Your task to perform on an android device: What's the weather going to be tomorrow? Image 0: 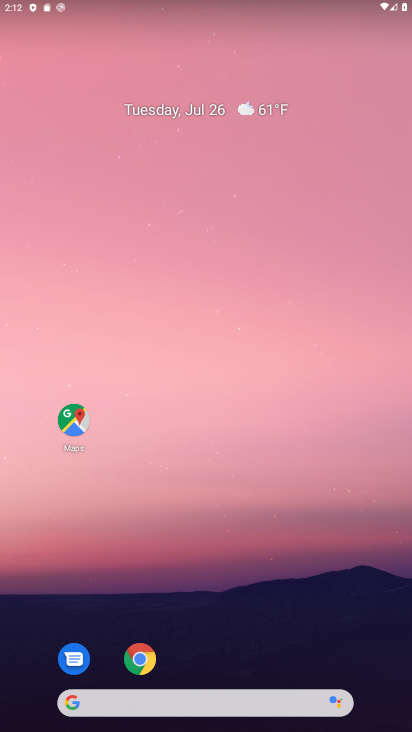
Step 0: drag from (190, 635) to (237, 116)
Your task to perform on an android device: What's the weather going to be tomorrow? Image 1: 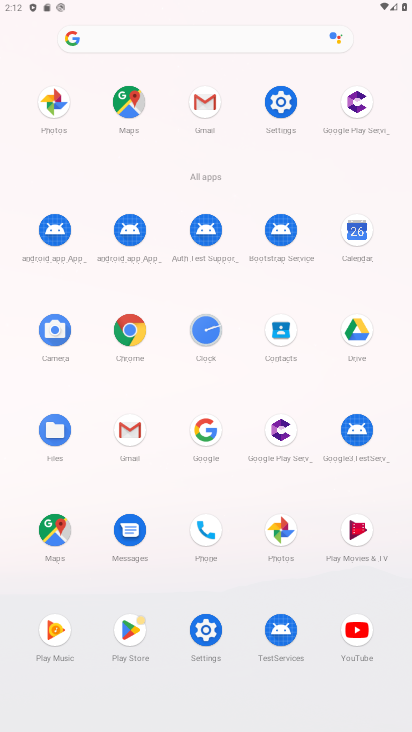
Step 1: click (197, 434)
Your task to perform on an android device: What's the weather going to be tomorrow? Image 2: 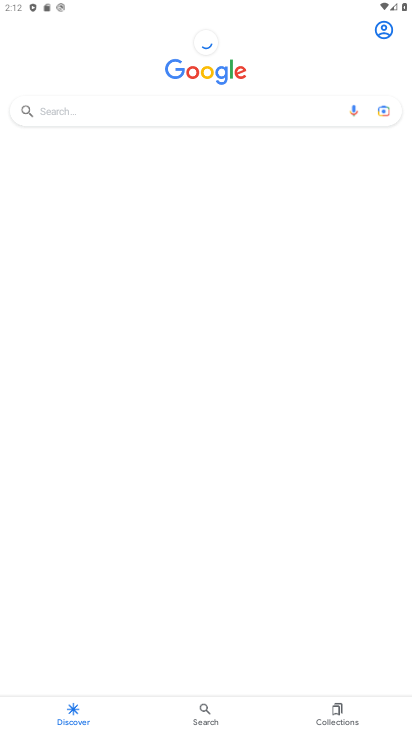
Step 2: click (106, 104)
Your task to perform on an android device: What's the weather going to be tomorrow? Image 3: 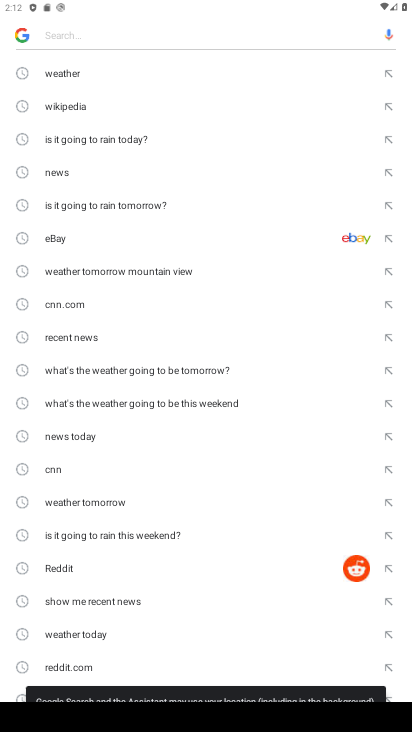
Step 3: click (70, 75)
Your task to perform on an android device: What's the weather going to be tomorrow? Image 4: 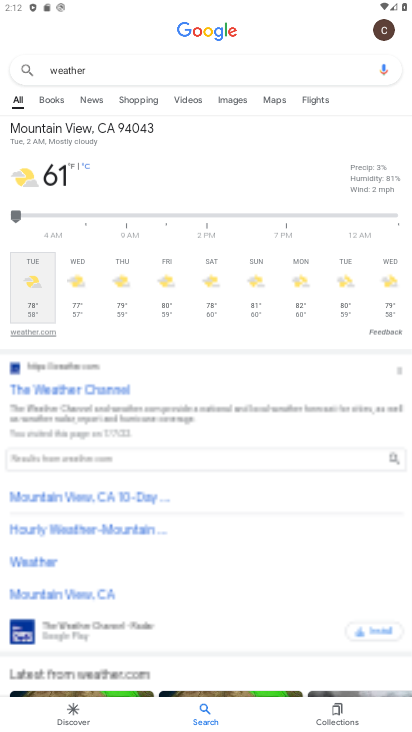
Step 4: click (33, 329)
Your task to perform on an android device: What's the weather going to be tomorrow? Image 5: 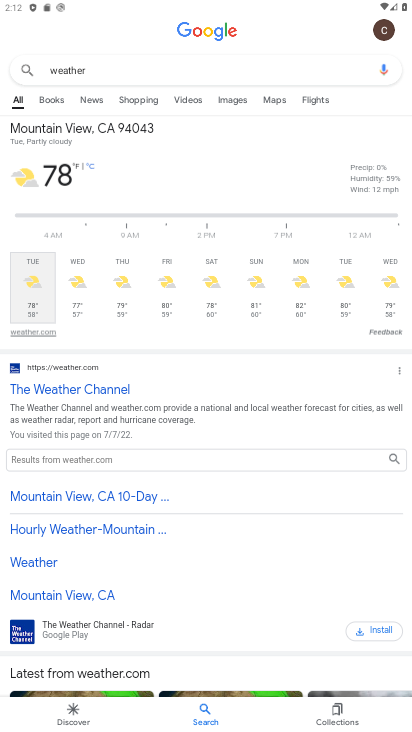
Step 5: click (29, 336)
Your task to perform on an android device: What's the weather going to be tomorrow? Image 6: 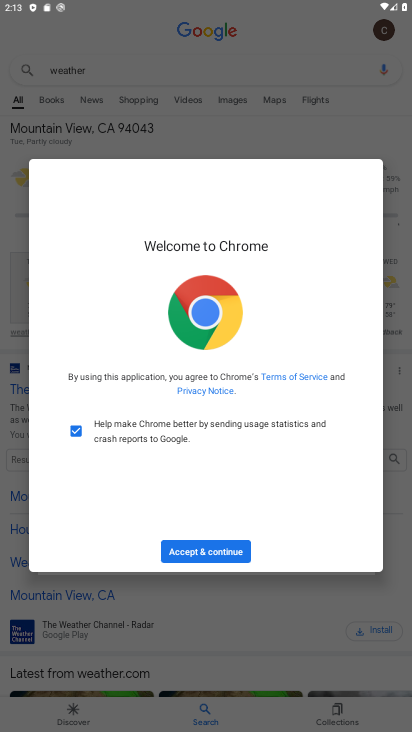
Step 6: click (196, 543)
Your task to perform on an android device: What's the weather going to be tomorrow? Image 7: 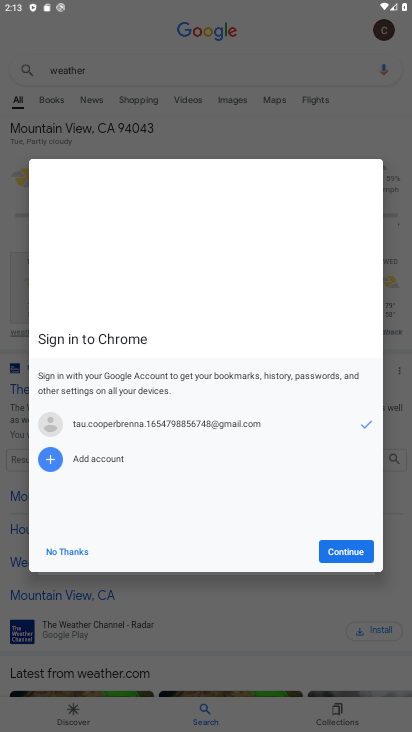
Step 7: click (340, 546)
Your task to perform on an android device: What's the weather going to be tomorrow? Image 8: 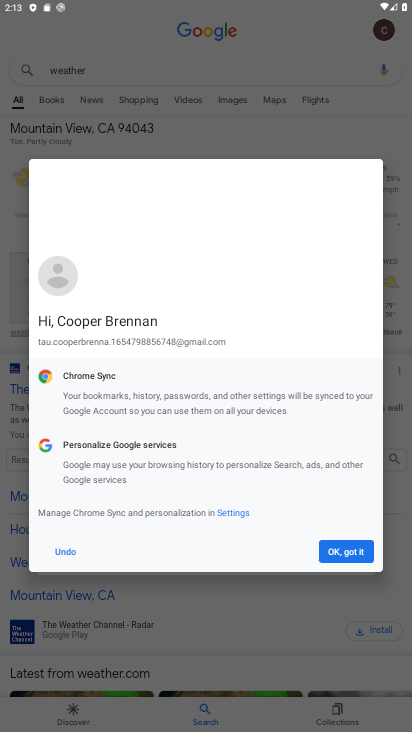
Step 8: click (340, 546)
Your task to perform on an android device: What's the weather going to be tomorrow? Image 9: 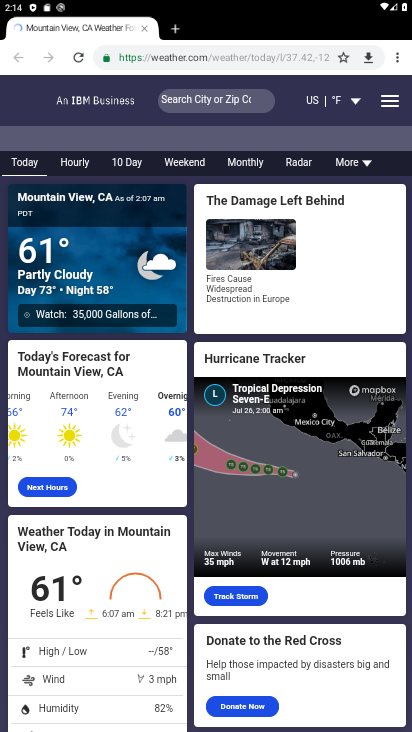
Step 9: task complete